Your task to perform on an android device: check google app version Image 0: 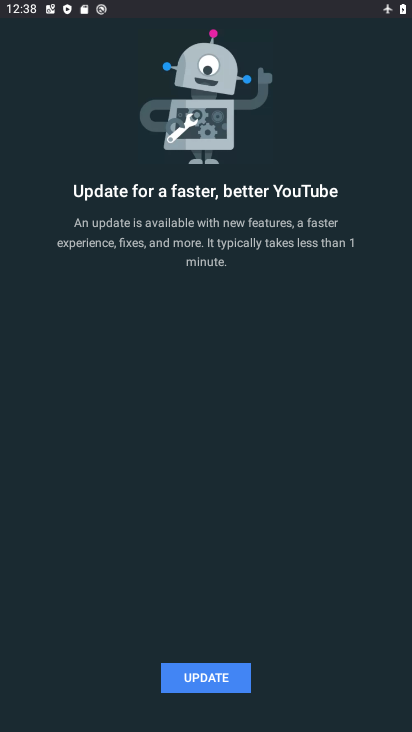
Step 0: press home button
Your task to perform on an android device: check google app version Image 1: 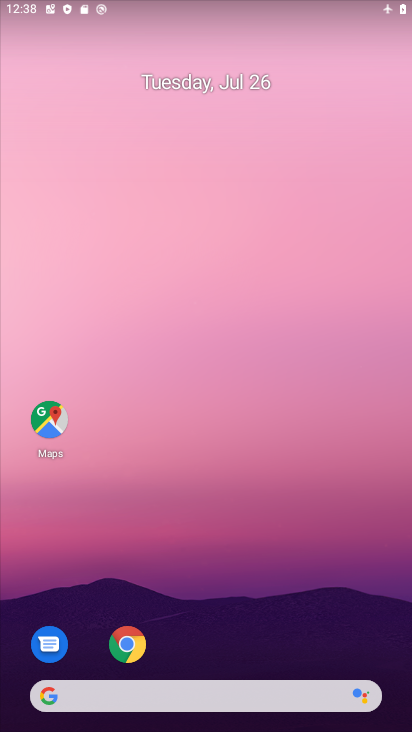
Step 1: drag from (200, 674) to (276, 184)
Your task to perform on an android device: check google app version Image 2: 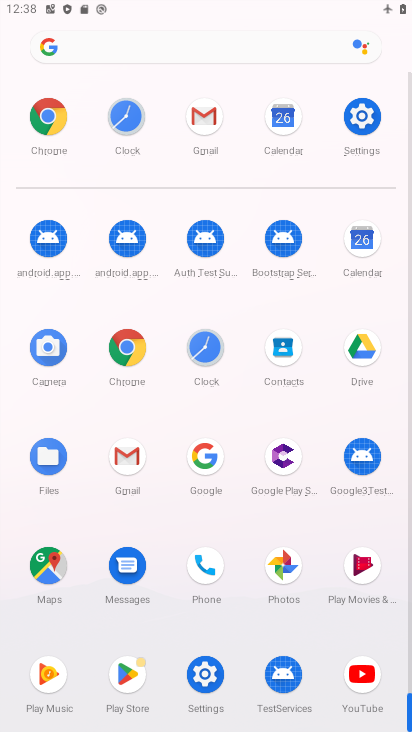
Step 2: click (213, 472)
Your task to perform on an android device: check google app version Image 3: 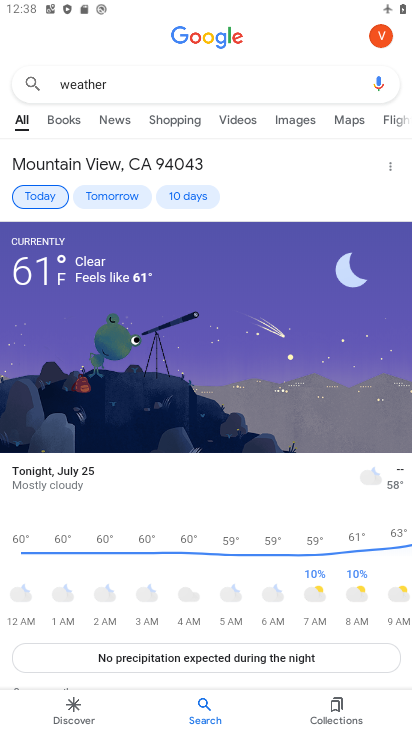
Step 3: click (382, 43)
Your task to perform on an android device: check google app version Image 4: 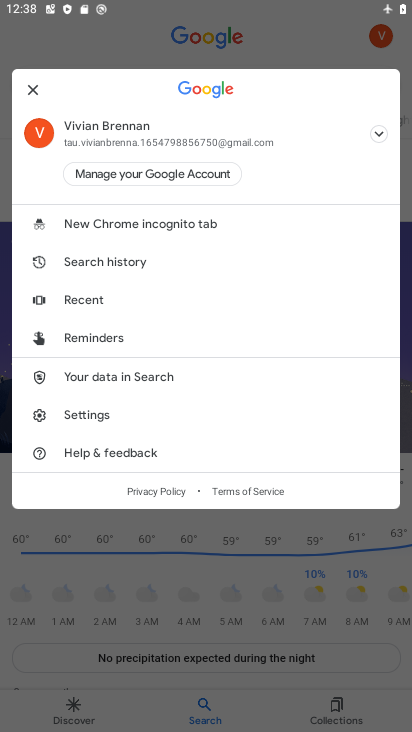
Step 4: click (64, 416)
Your task to perform on an android device: check google app version Image 5: 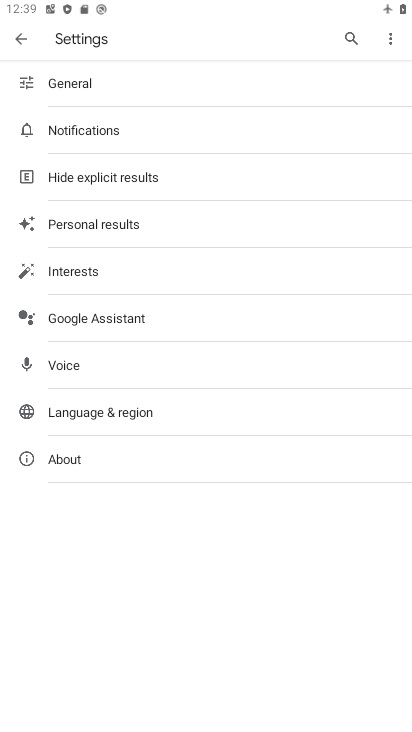
Step 5: click (64, 467)
Your task to perform on an android device: check google app version Image 6: 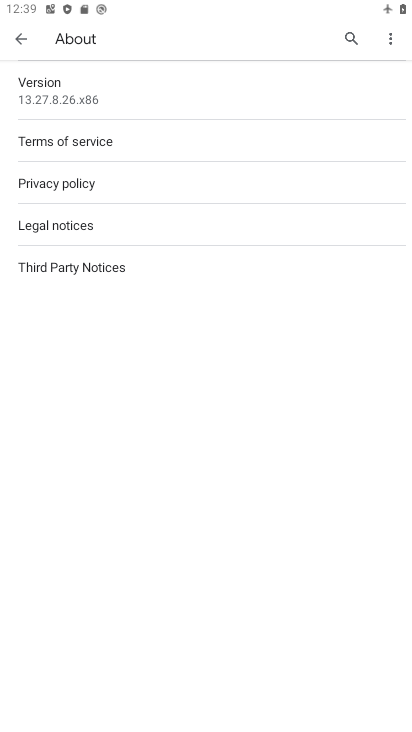
Step 6: click (123, 85)
Your task to perform on an android device: check google app version Image 7: 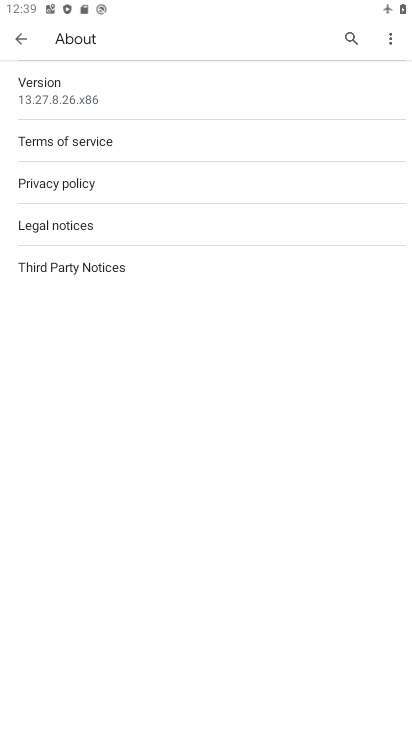
Step 7: task complete